Your task to perform on an android device: Open internet settings Image 0: 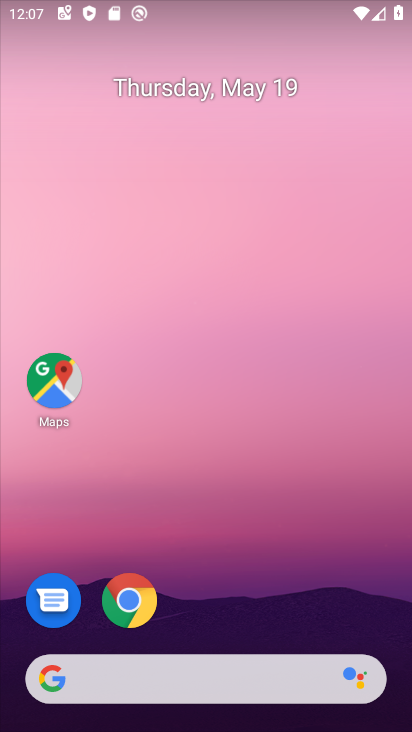
Step 0: drag from (278, 570) to (204, 7)
Your task to perform on an android device: Open internet settings Image 1: 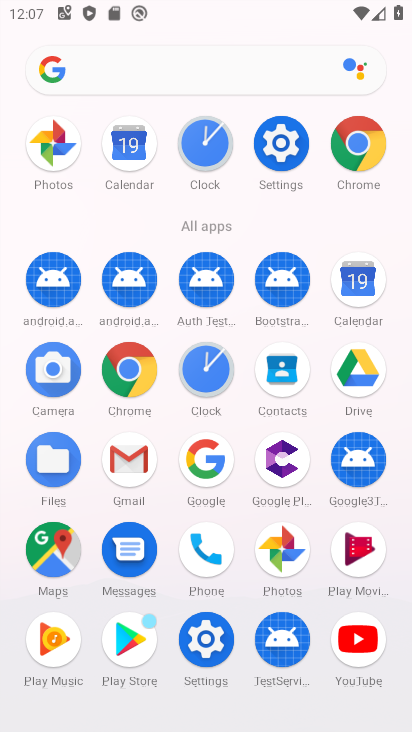
Step 1: click (258, 163)
Your task to perform on an android device: Open internet settings Image 2: 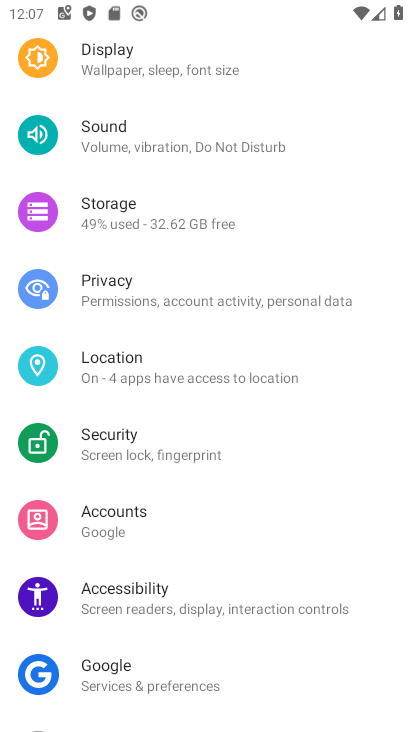
Step 2: drag from (239, 120) to (245, 670)
Your task to perform on an android device: Open internet settings Image 3: 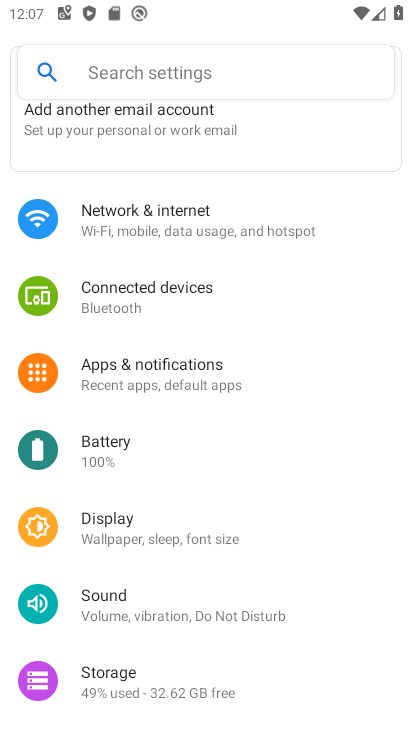
Step 3: click (167, 227)
Your task to perform on an android device: Open internet settings Image 4: 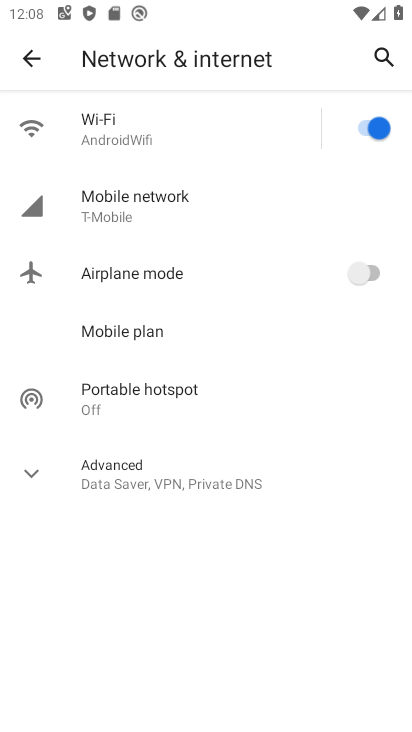
Step 4: task complete